Your task to perform on an android device: toggle priority inbox in the gmail app Image 0: 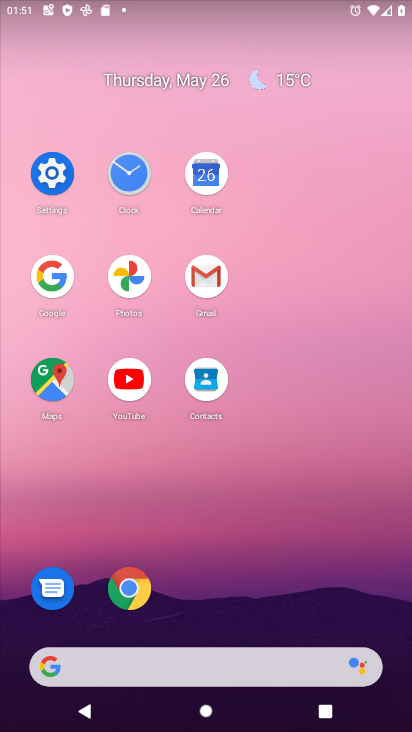
Step 0: click (221, 273)
Your task to perform on an android device: toggle priority inbox in the gmail app Image 1: 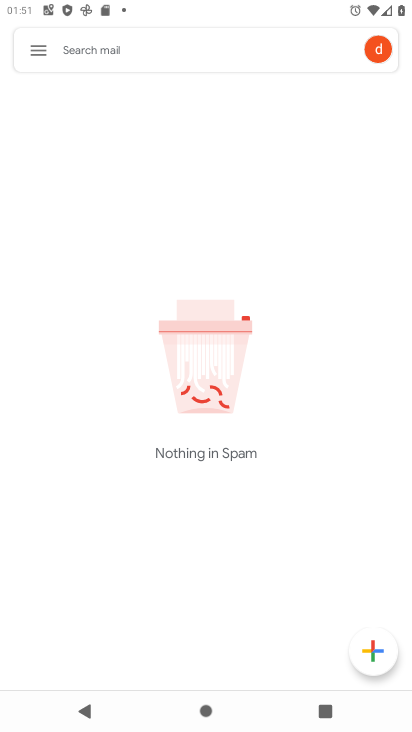
Step 1: click (28, 55)
Your task to perform on an android device: toggle priority inbox in the gmail app Image 2: 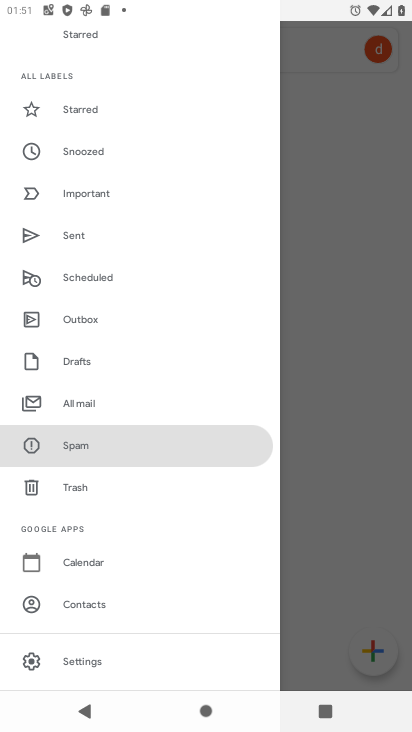
Step 2: click (123, 258)
Your task to perform on an android device: toggle priority inbox in the gmail app Image 3: 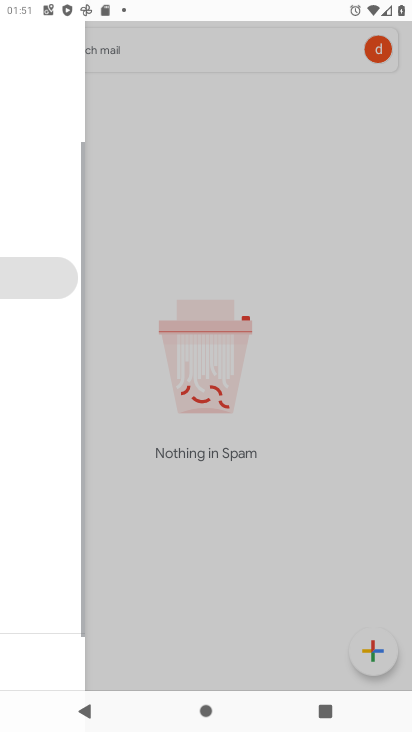
Step 3: click (131, 681)
Your task to perform on an android device: toggle priority inbox in the gmail app Image 4: 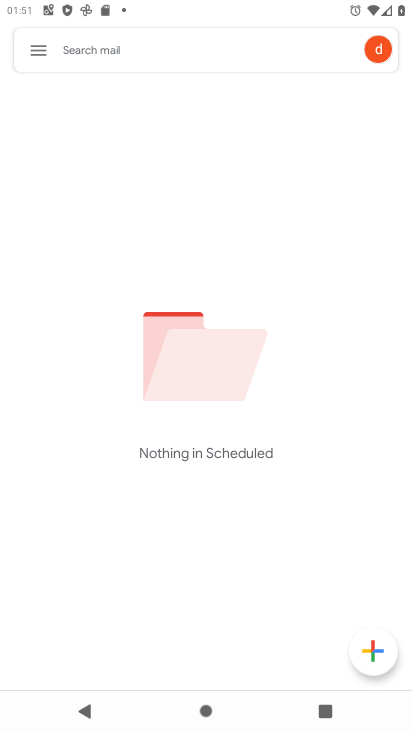
Step 4: click (34, 58)
Your task to perform on an android device: toggle priority inbox in the gmail app Image 5: 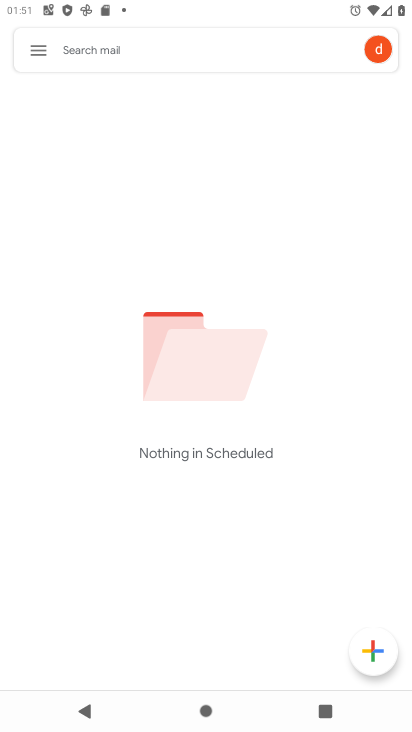
Step 5: click (30, 71)
Your task to perform on an android device: toggle priority inbox in the gmail app Image 6: 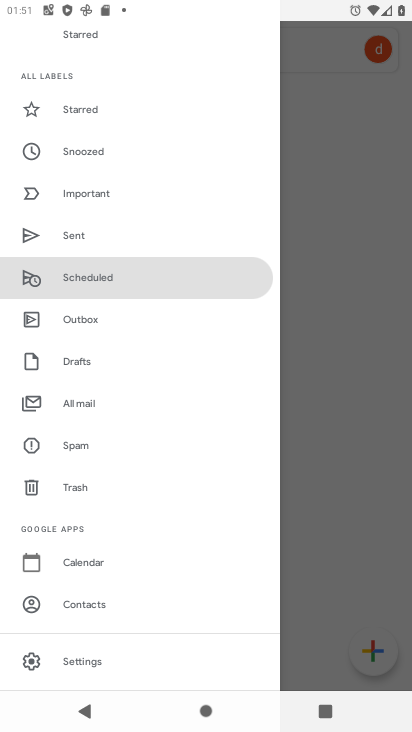
Step 6: click (118, 663)
Your task to perform on an android device: toggle priority inbox in the gmail app Image 7: 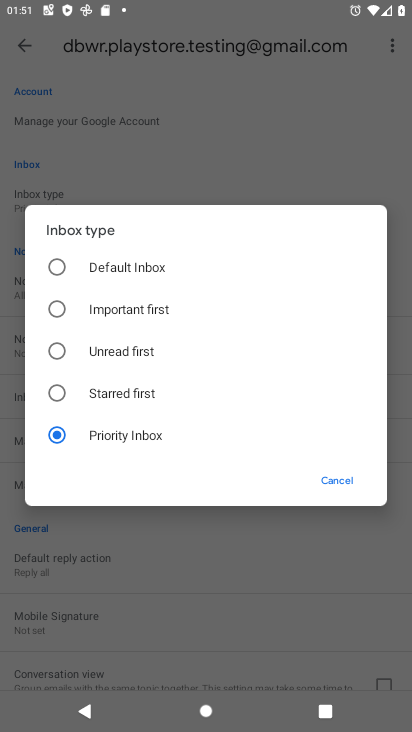
Step 7: click (96, 252)
Your task to perform on an android device: toggle priority inbox in the gmail app Image 8: 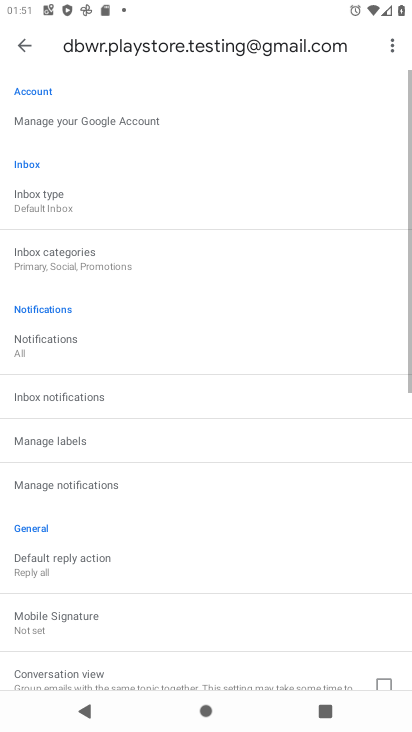
Step 8: task complete